Your task to perform on an android device: What's on my calendar today? Image 0: 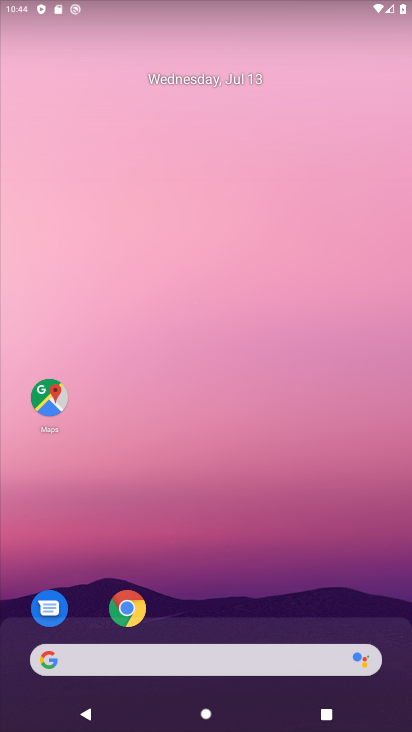
Step 0: drag from (224, 597) to (319, 154)
Your task to perform on an android device: What's on my calendar today? Image 1: 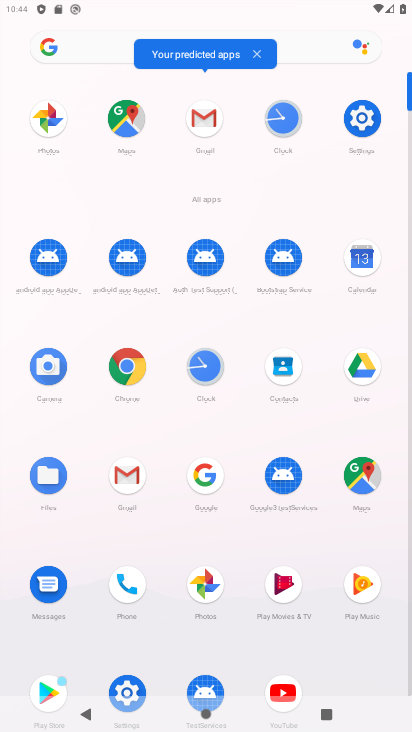
Step 1: click (352, 281)
Your task to perform on an android device: What's on my calendar today? Image 2: 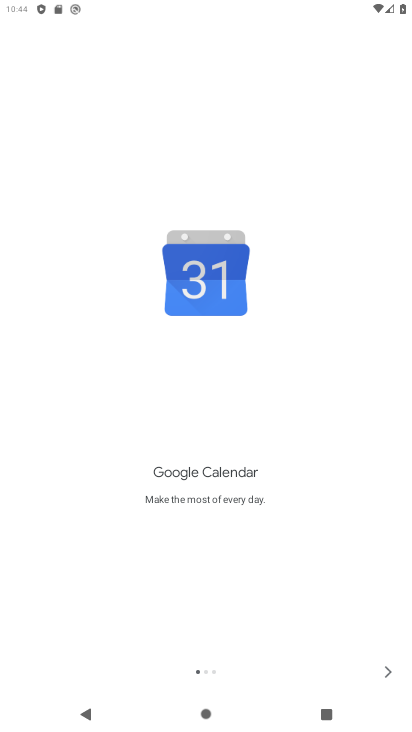
Step 2: click (387, 664)
Your task to perform on an android device: What's on my calendar today? Image 3: 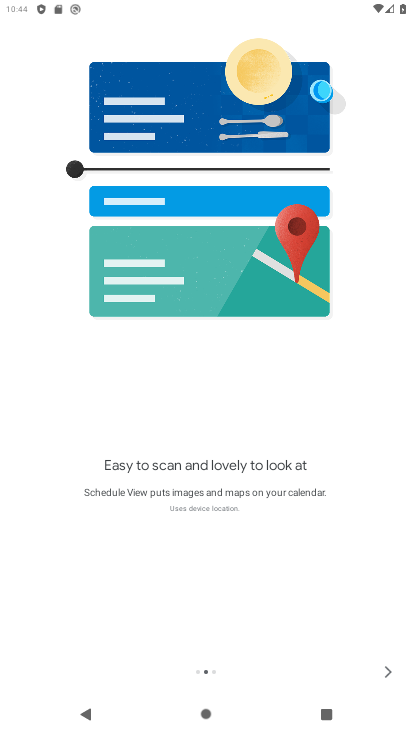
Step 3: click (387, 664)
Your task to perform on an android device: What's on my calendar today? Image 4: 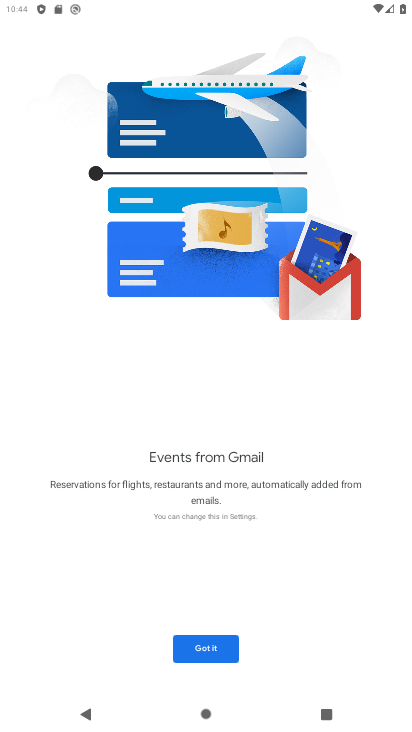
Step 4: click (232, 657)
Your task to perform on an android device: What's on my calendar today? Image 5: 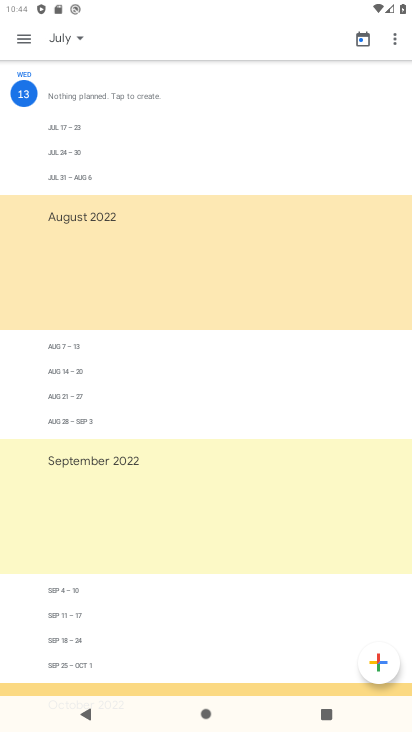
Step 5: task complete